Your task to perform on an android device: toggle data saver in the chrome app Image 0: 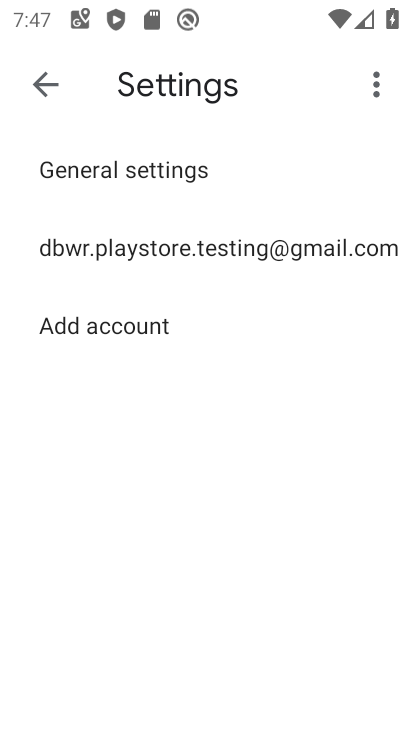
Step 0: press home button
Your task to perform on an android device: toggle data saver in the chrome app Image 1: 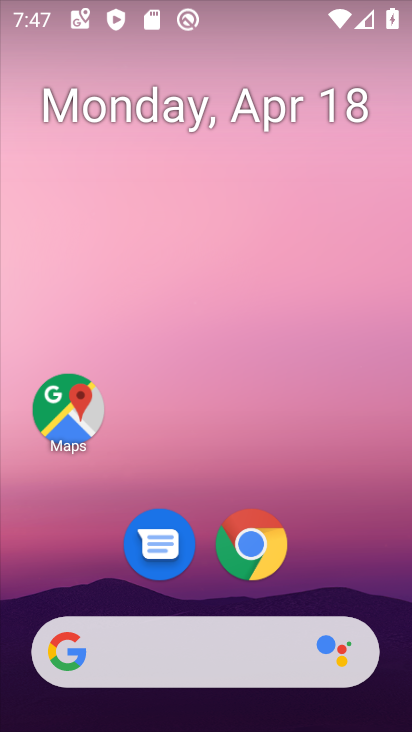
Step 1: click (255, 546)
Your task to perform on an android device: toggle data saver in the chrome app Image 2: 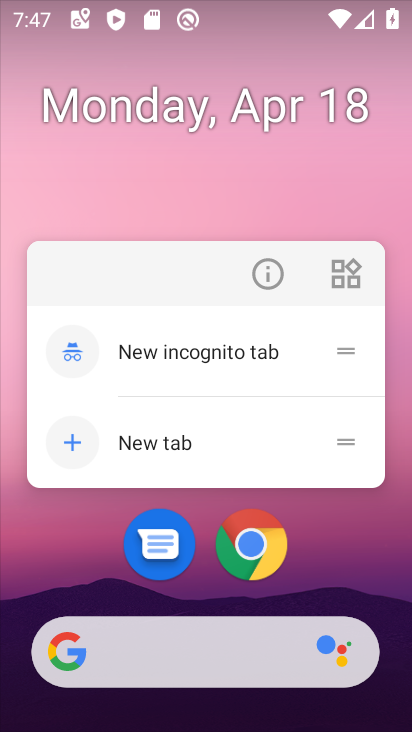
Step 2: click (244, 546)
Your task to perform on an android device: toggle data saver in the chrome app Image 3: 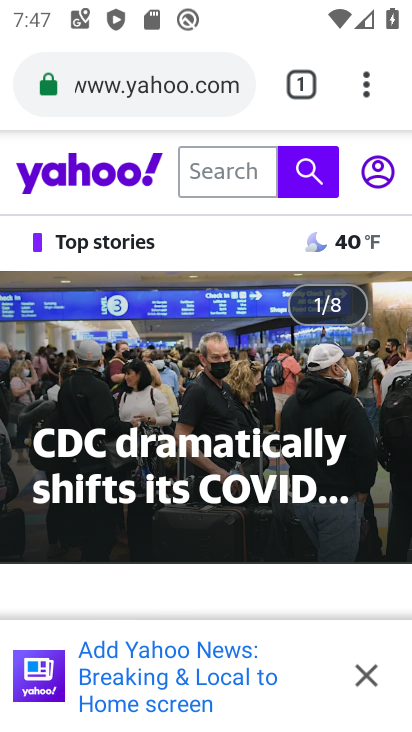
Step 3: click (367, 81)
Your task to perform on an android device: toggle data saver in the chrome app Image 4: 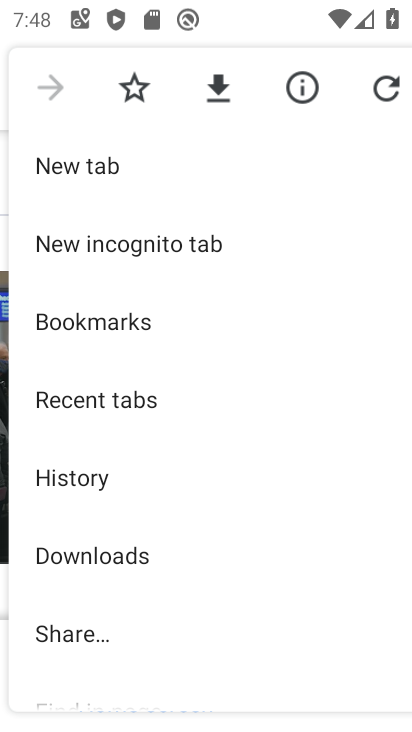
Step 4: drag from (214, 558) to (192, 141)
Your task to perform on an android device: toggle data saver in the chrome app Image 5: 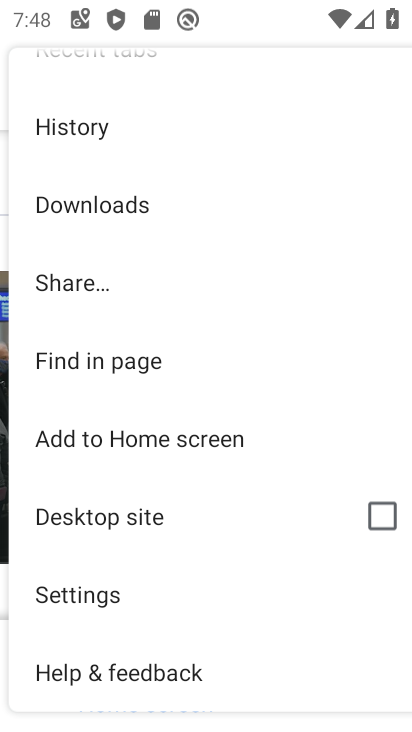
Step 5: click (73, 589)
Your task to perform on an android device: toggle data saver in the chrome app Image 6: 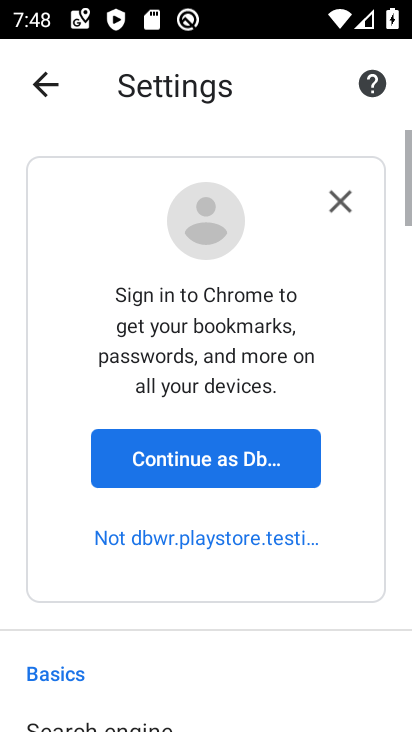
Step 6: drag from (183, 612) to (166, 141)
Your task to perform on an android device: toggle data saver in the chrome app Image 7: 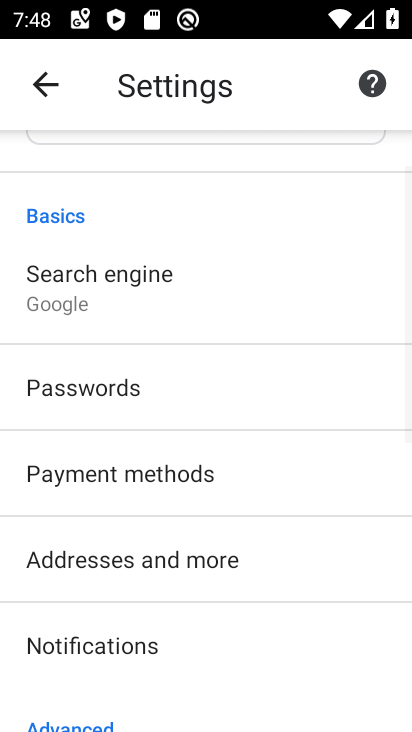
Step 7: drag from (159, 566) to (167, 127)
Your task to perform on an android device: toggle data saver in the chrome app Image 8: 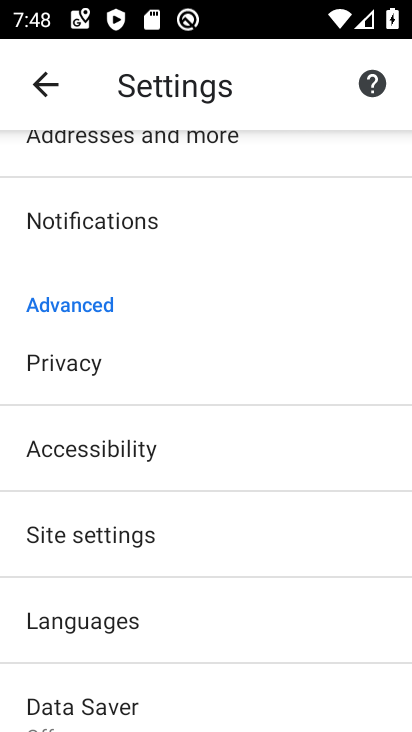
Step 8: drag from (226, 596) to (222, 341)
Your task to perform on an android device: toggle data saver in the chrome app Image 9: 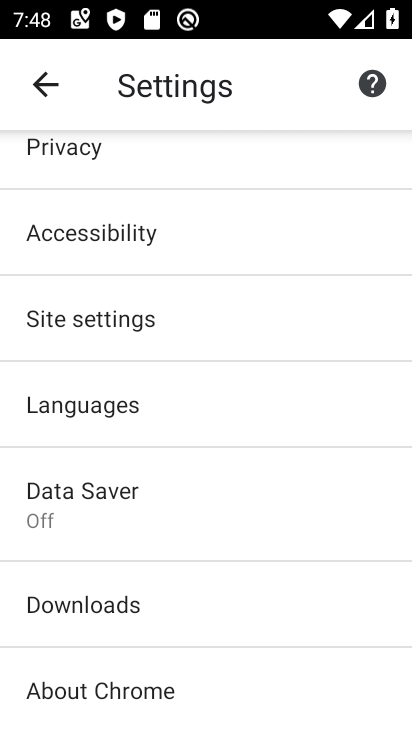
Step 9: click (64, 491)
Your task to perform on an android device: toggle data saver in the chrome app Image 10: 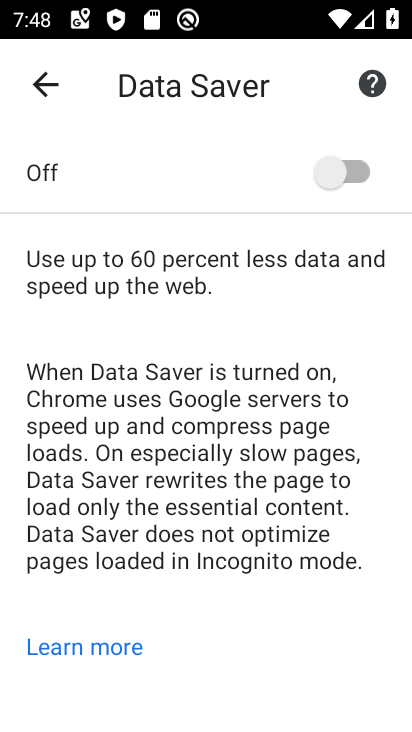
Step 10: click (337, 176)
Your task to perform on an android device: toggle data saver in the chrome app Image 11: 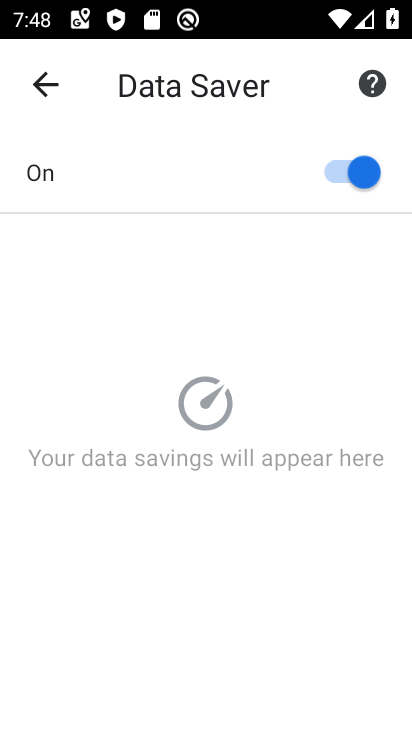
Step 11: task complete